Your task to perform on an android device: Go to wifi settings Image 0: 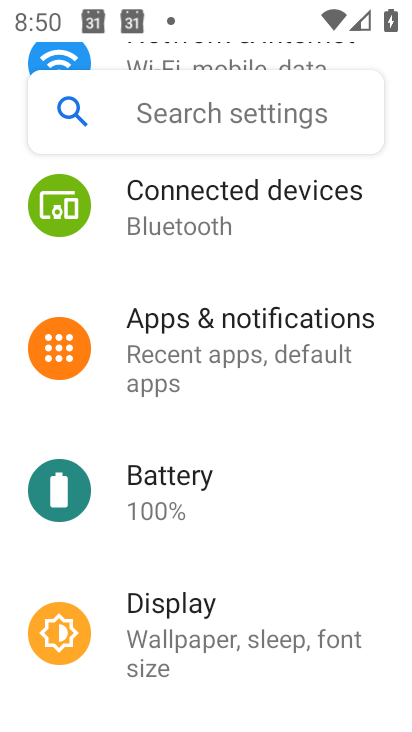
Step 0: drag from (264, 246) to (382, 705)
Your task to perform on an android device: Go to wifi settings Image 1: 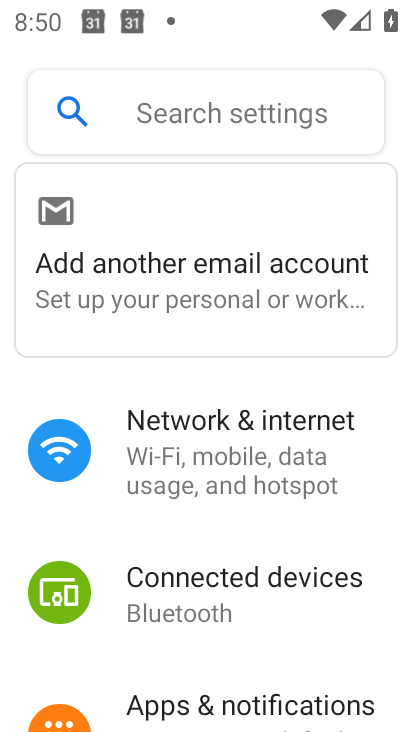
Step 1: click (204, 434)
Your task to perform on an android device: Go to wifi settings Image 2: 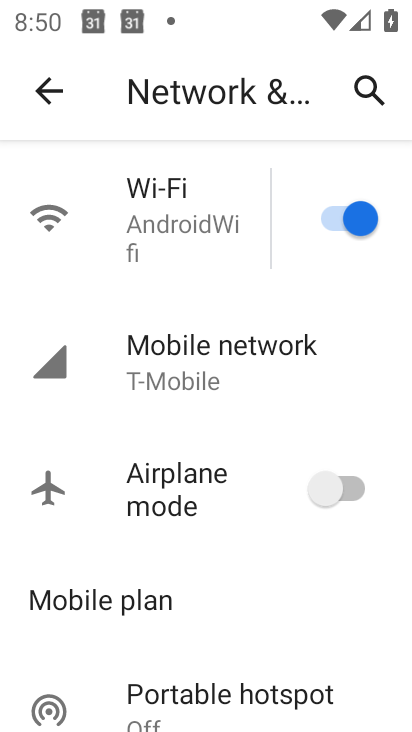
Step 2: click (176, 200)
Your task to perform on an android device: Go to wifi settings Image 3: 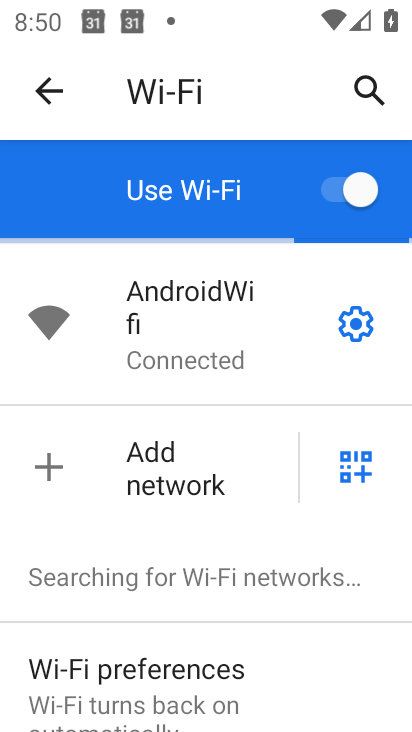
Step 3: task complete